Your task to perform on an android device: Open battery settings Image 0: 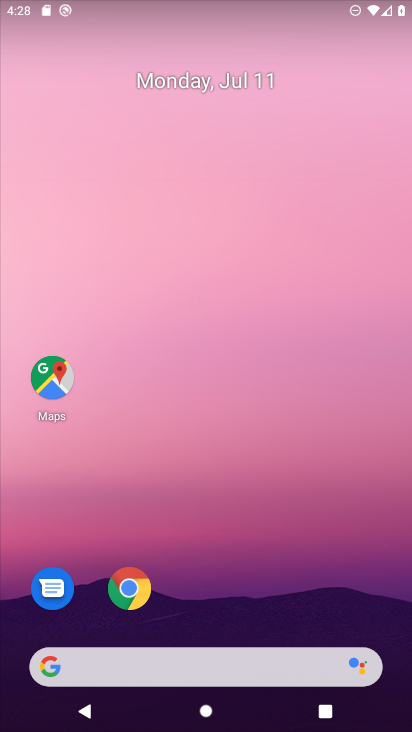
Step 0: press home button
Your task to perform on an android device: Open battery settings Image 1: 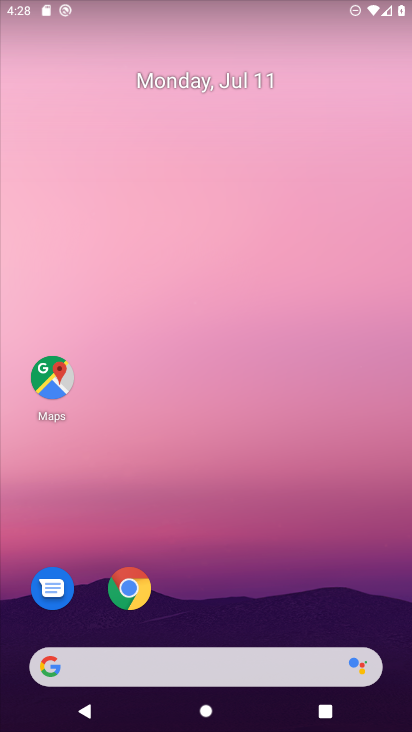
Step 1: drag from (270, 615) to (198, 126)
Your task to perform on an android device: Open battery settings Image 2: 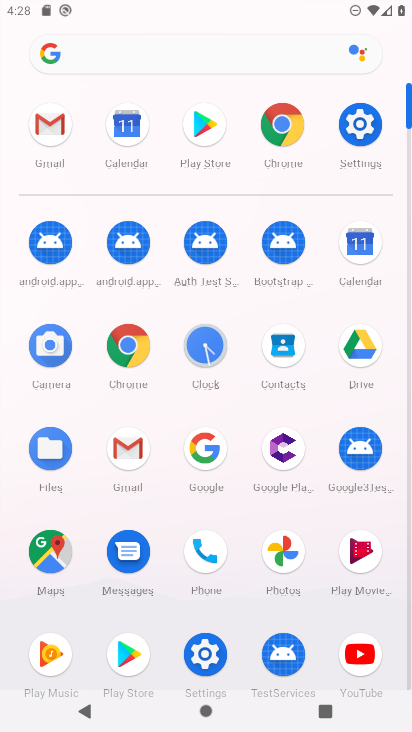
Step 2: click (363, 130)
Your task to perform on an android device: Open battery settings Image 3: 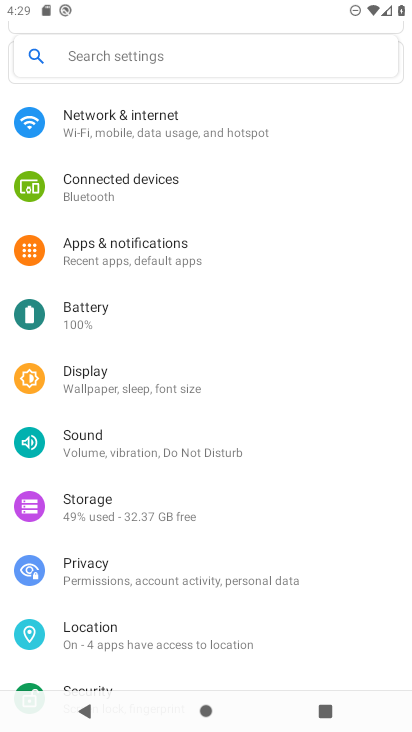
Step 3: click (79, 311)
Your task to perform on an android device: Open battery settings Image 4: 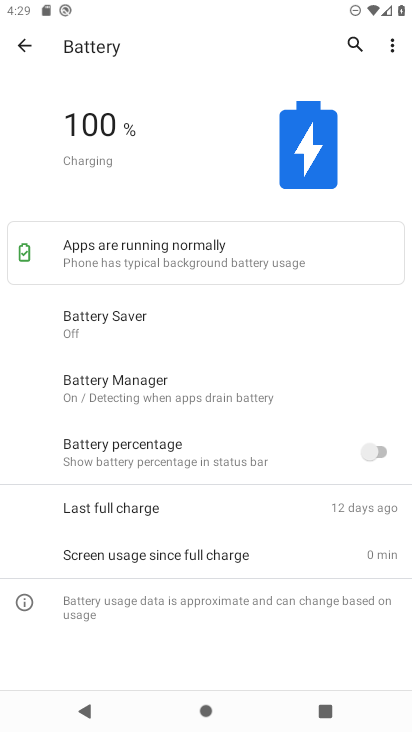
Step 4: task complete